Your task to perform on an android device: Go to sound settings Image 0: 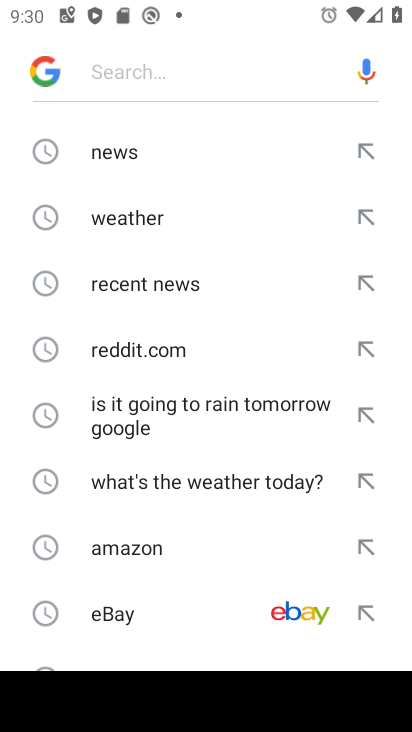
Step 0: press home button
Your task to perform on an android device: Go to sound settings Image 1: 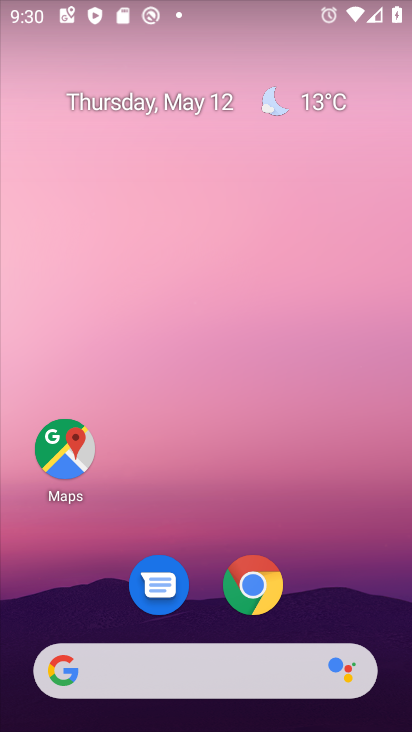
Step 1: drag from (214, 444) to (193, 45)
Your task to perform on an android device: Go to sound settings Image 2: 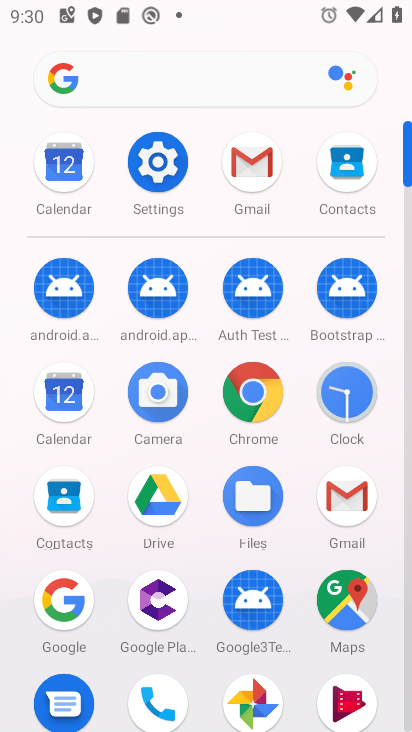
Step 2: click (162, 153)
Your task to perform on an android device: Go to sound settings Image 3: 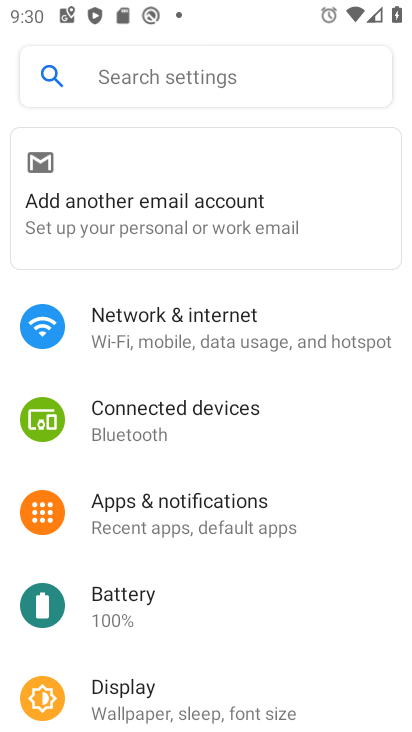
Step 3: drag from (220, 524) to (237, 80)
Your task to perform on an android device: Go to sound settings Image 4: 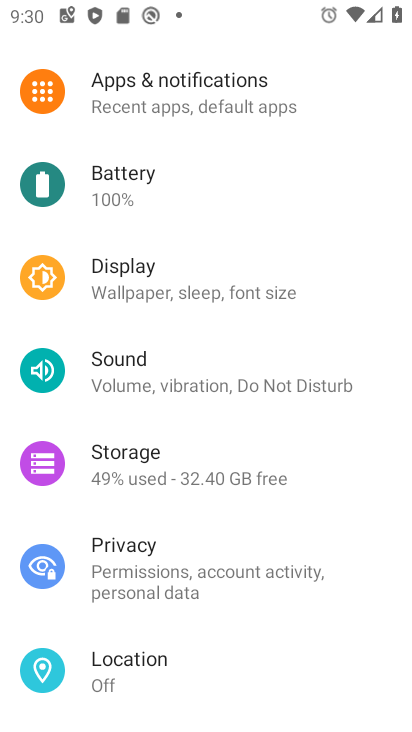
Step 4: click (219, 380)
Your task to perform on an android device: Go to sound settings Image 5: 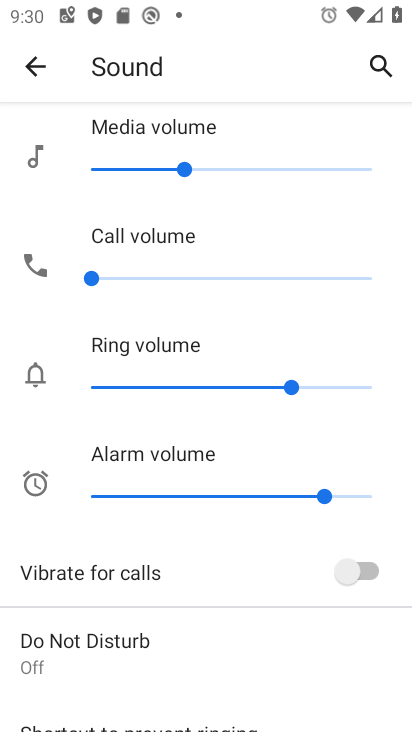
Step 5: task complete